Your task to perform on an android device: Open calendar and show me the third week of next month Image 0: 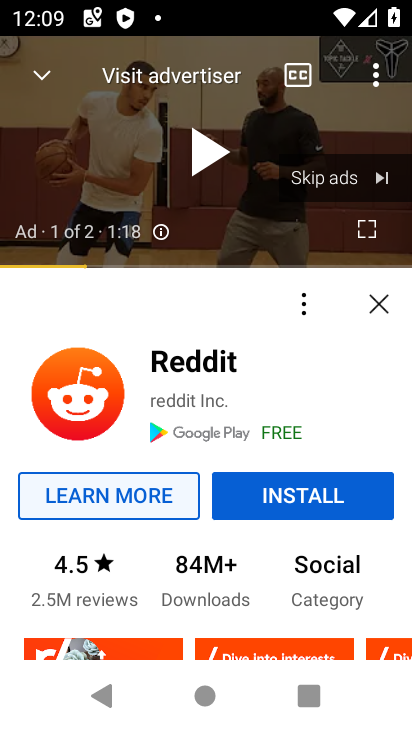
Step 0: press home button
Your task to perform on an android device: Open calendar and show me the third week of next month Image 1: 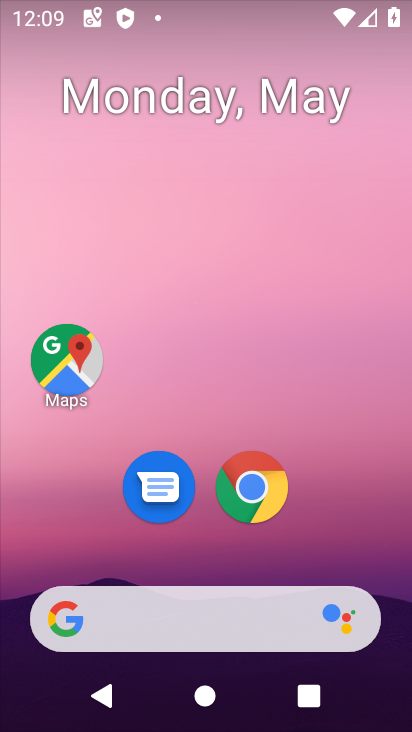
Step 1: drag from (327, 540) to (410, 1)
Your task to perform on an android device: Open calendar and show me the third week of next month Image 2: 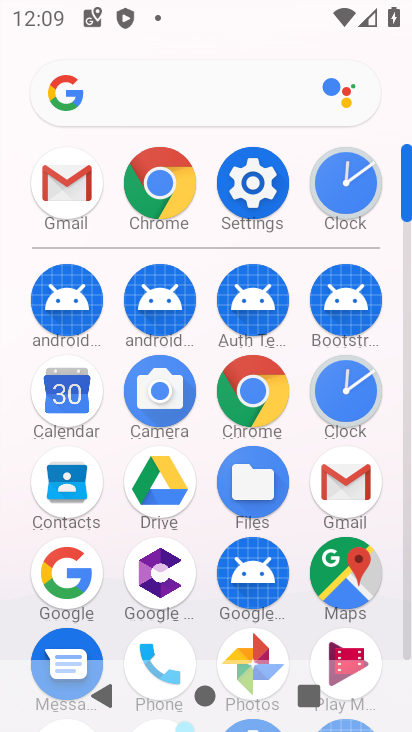
Step 2: click (62, 403)
Your task to perform on an android device: Open calendar and show me the third week of next month Image 3: 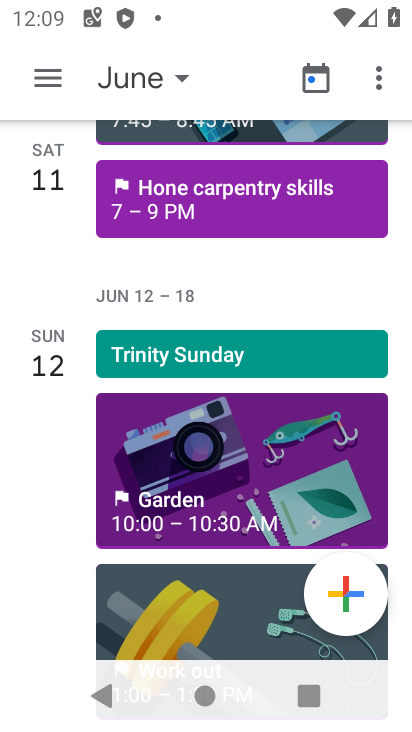
Step 3: click (156, 81)
Your task to perform on an android device: Open calendar and show me the third week of next month Image 4: 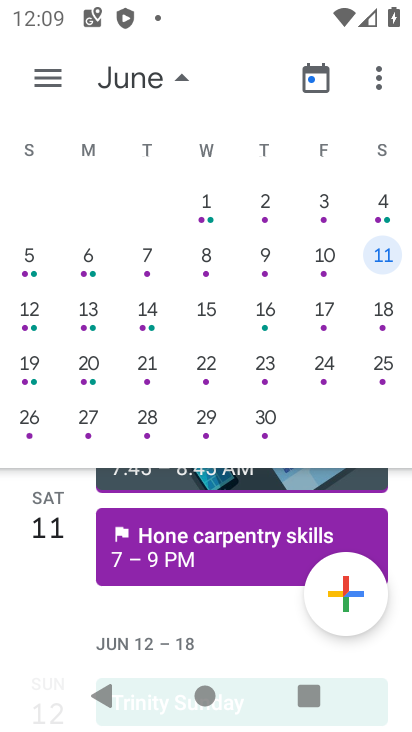
Step 4: click (48, 316)
Your task to perform on an android device: Open calendar and show me the third week of next month Image 5: 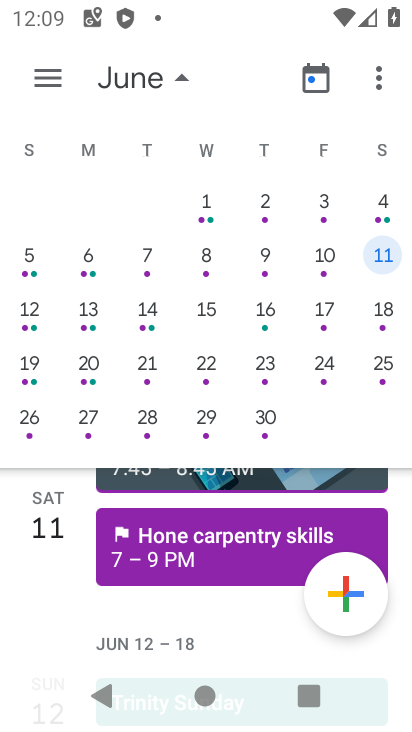
Step 5: click (35, 323)
Your task to perform on an android device: Open calendar and show me the third week of next month Image 6: 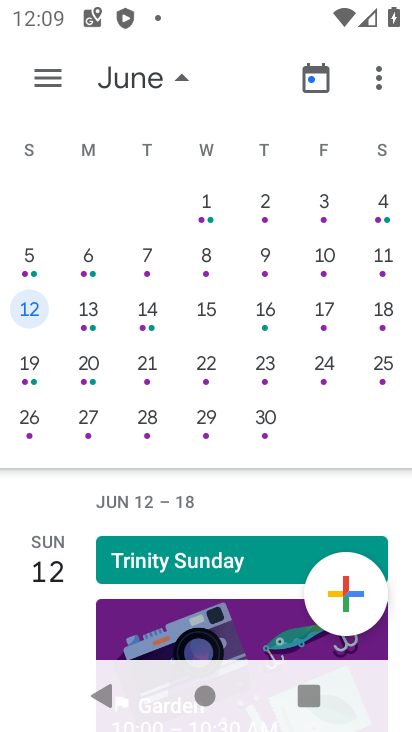
Step 6: task complete